Your task to perform on an android device: What's the weather? Image 0: 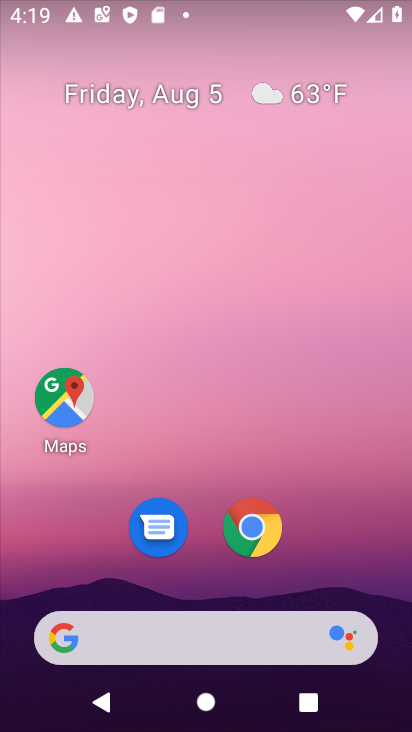
Step 0: click (269, 88)
Your task to perform on an android device: What's the weather? Image 1: 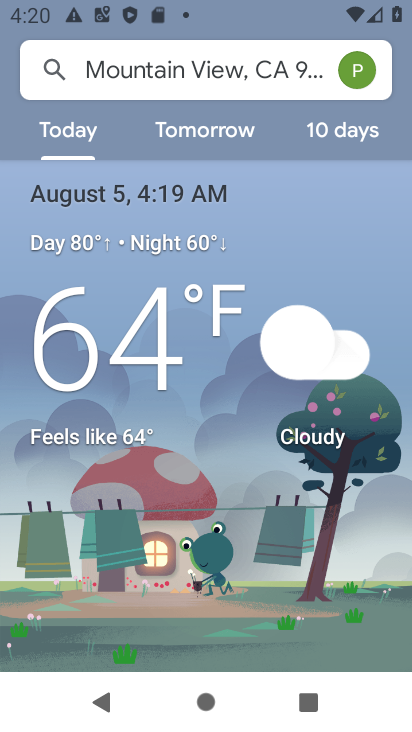
Step 1: task complete